Your task to perform on an android device: Toggle the flashlight Image 0: 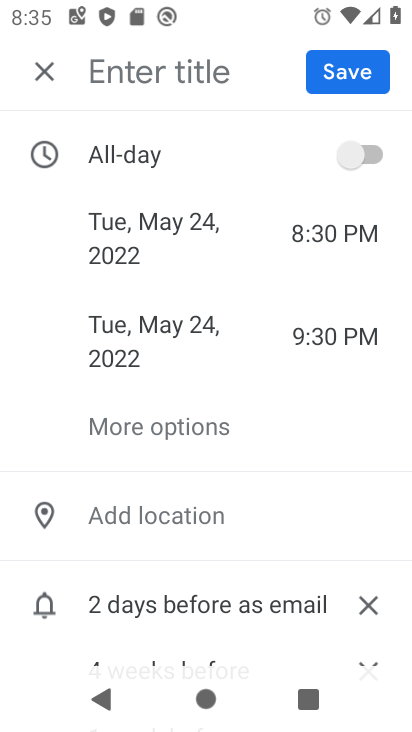
Step 0: press home button
Your task to perform on an android device: Toggle the flashlight Image 1: 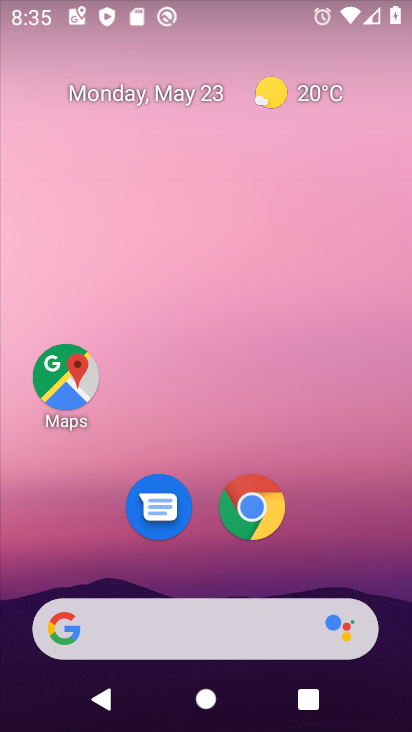
Step 1: task complete